Your task to perform on an android device: Go to wifi settings Image 0: 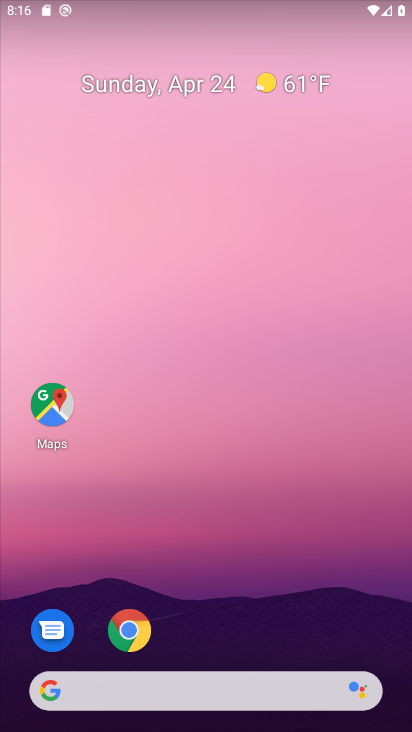
Step 0: drag from (368, 634) to (410, 379)
Your task to perform on an android device: Go to wifi settings Image 1: 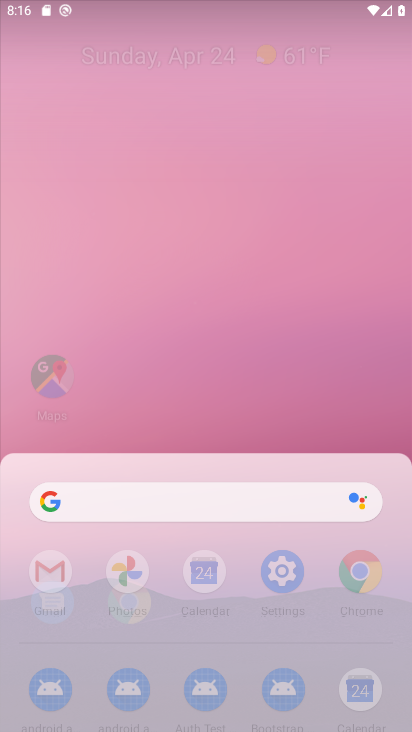
Step 1: drag from (365, 396) to (329, 31)
Your task to perform on an android device: Go to wifi settings Image 2: 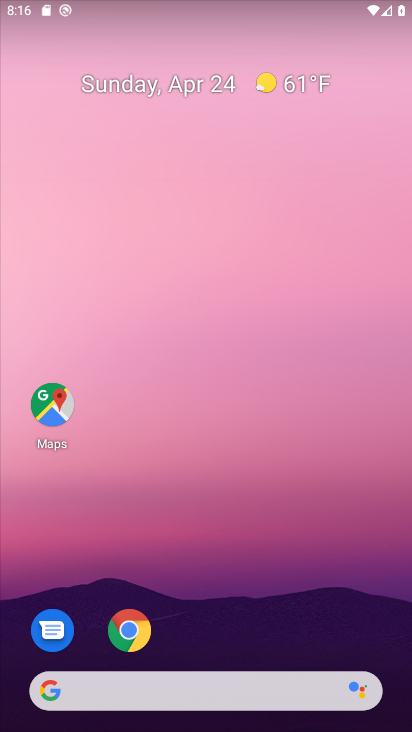
Step 2: drag from (339, 597) to (335, 15)
Your task to perform on an android device: Go to wifi settings Image 3: 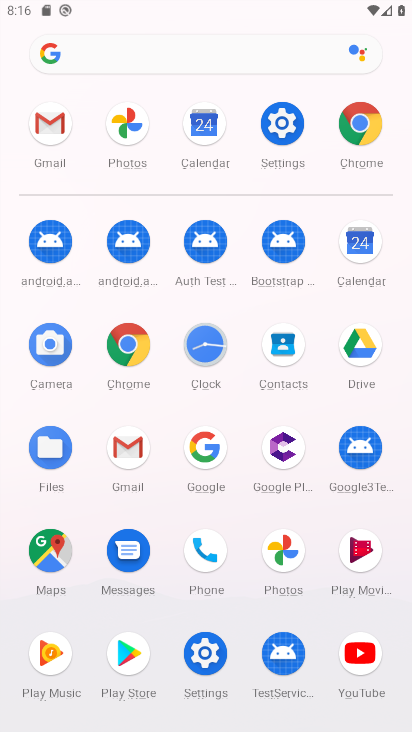
Step 3: click (282, 130)
Your task to perform on an android device: Go to wifi settings Image 4: 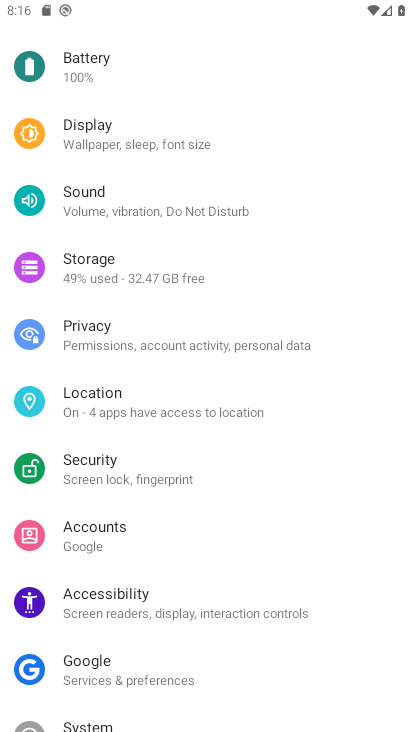
Step 4: drag from (356, 347) to (361, 466)
Your task to perform on an android device: Go to wifi settings Image 5: 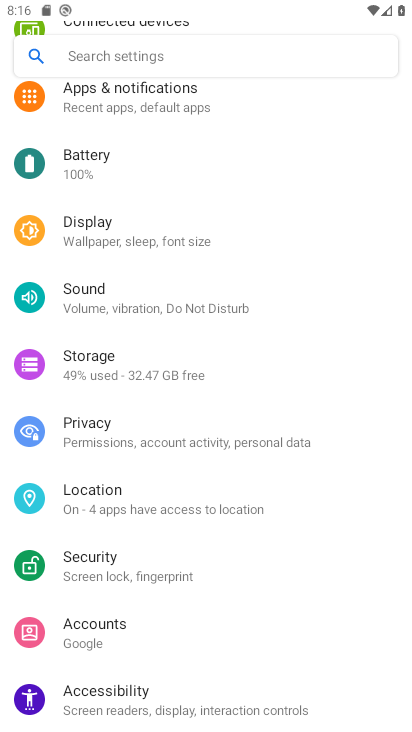
Step 5: drag from (345, 304) to (341, 451)
Your task to perform on an android device: Go to wifi settings Image 6: 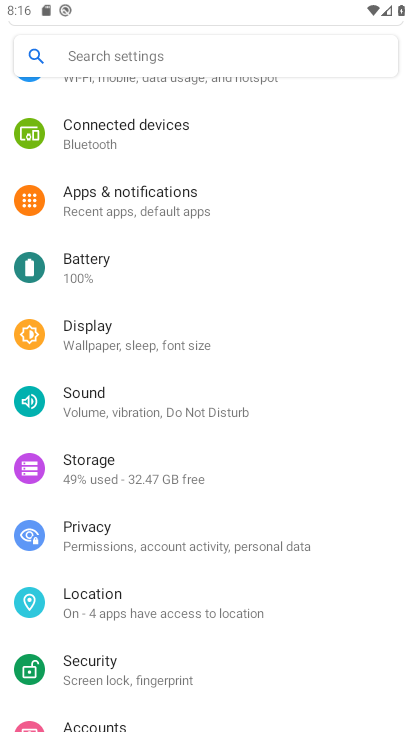
Step 6: drag from (325, 232) to (322, 406)
Your task to perform on an android device: Go to wifi settings Image 7: 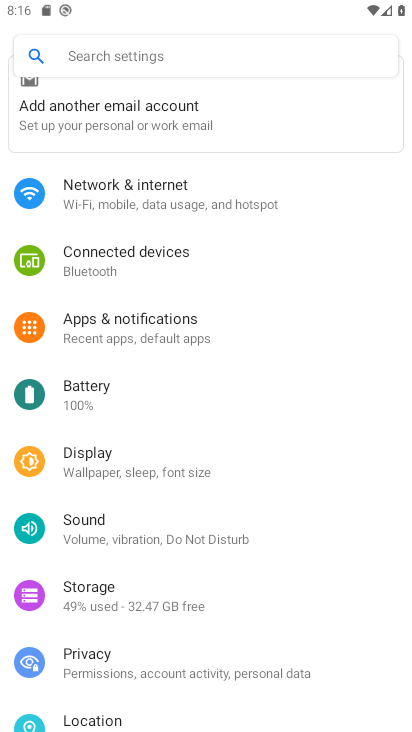
Step 7: drag from (323, 196) to (325, 370)
Your task to perform on an android device: Go to wifi settings Image 8: 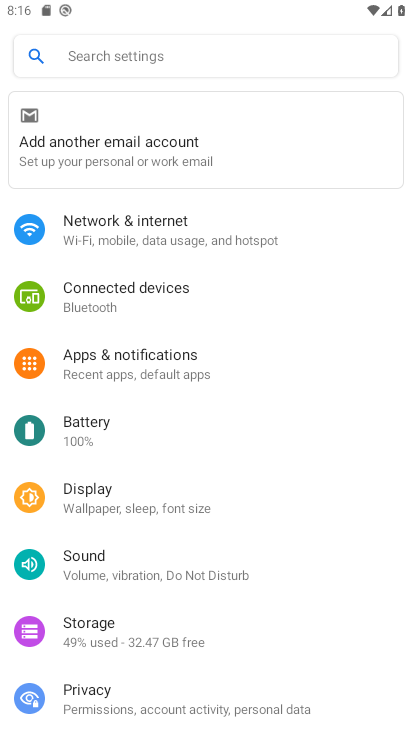
Step 8: click (184, 232)
Your task to perform on an android device: Go to wifi settings Image 9: 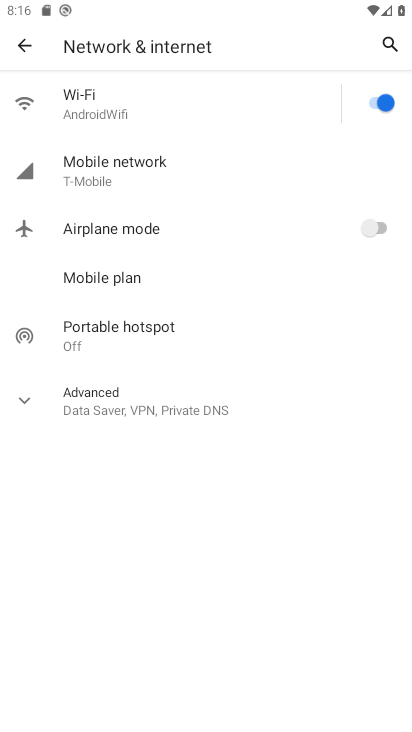
Step 9: click (200, 115)
Your task to perform on an android device: Go to wifi settings Image 10: 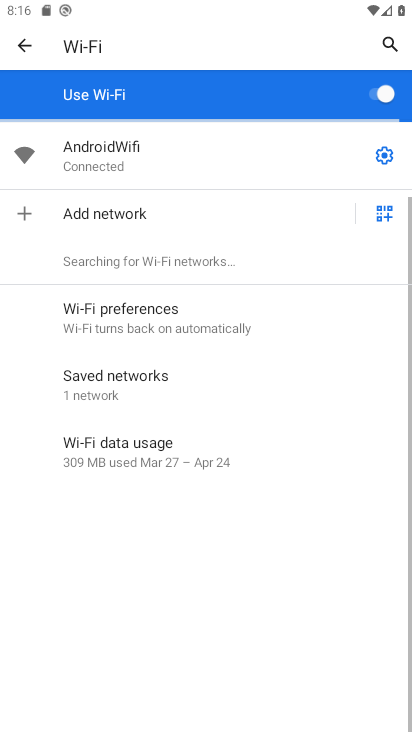
Step 10: task complete